Your task to perform on an android device: turn off notifications settings in the gmail app Image 0: 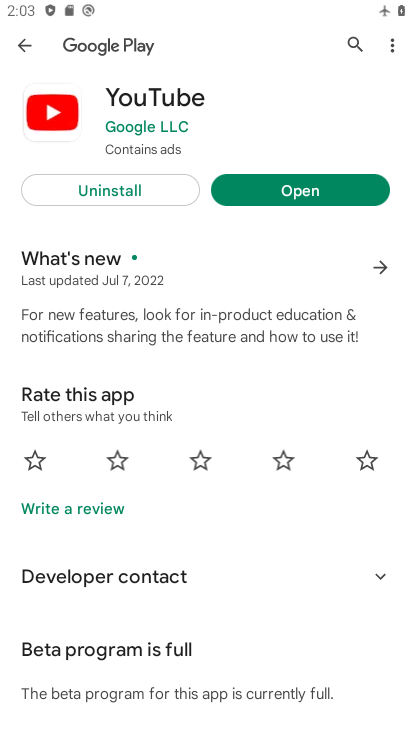
Step 0: press home button
Your task to perform on an android device: turn off notifications settings in the gmail app Image 1: 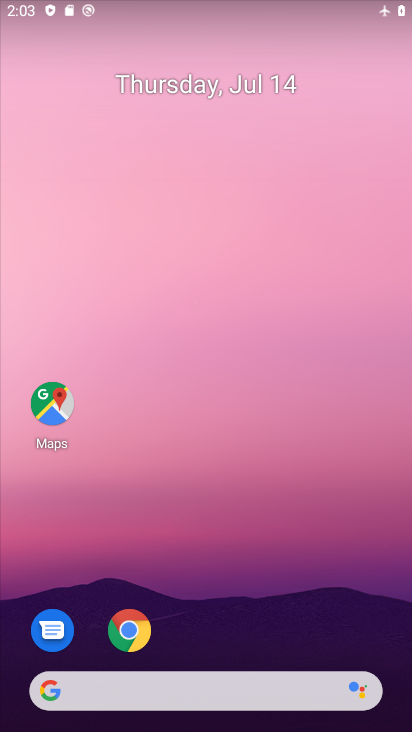
Step 1: drag from (211, 644) to (242, 51)
Your task to perform on an android device: turn off notifications settings in the gmail app Image 2: 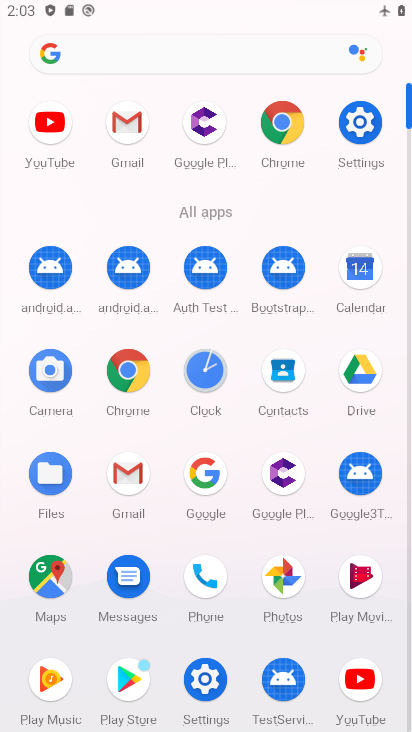
Step 2: click (129, 470)
Your task to perform on an android device: turn off notifications settings in the gmail app Image 3: 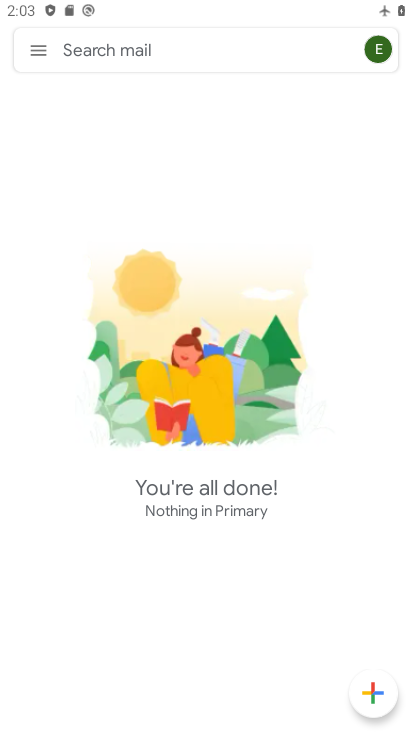
Step 3: click (38, 48)
Your task to perform on an android device: turn off notifications settings in the gmail app Image 4: 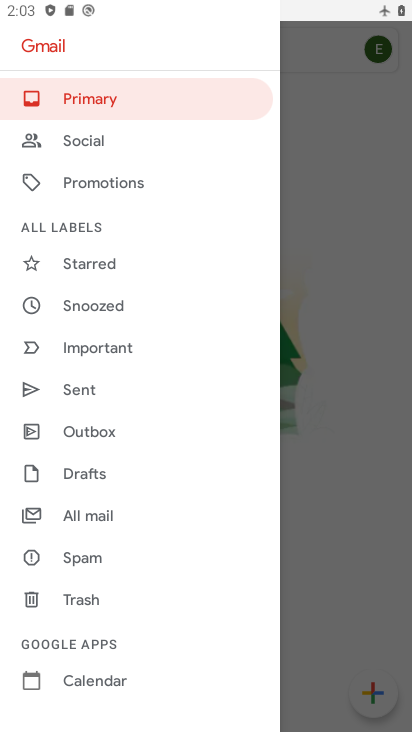
Step 4: drag from (141, 627) to (205, 42)
Your task to perform on an android device: turn off notifications settings in the gmail app Image 5: 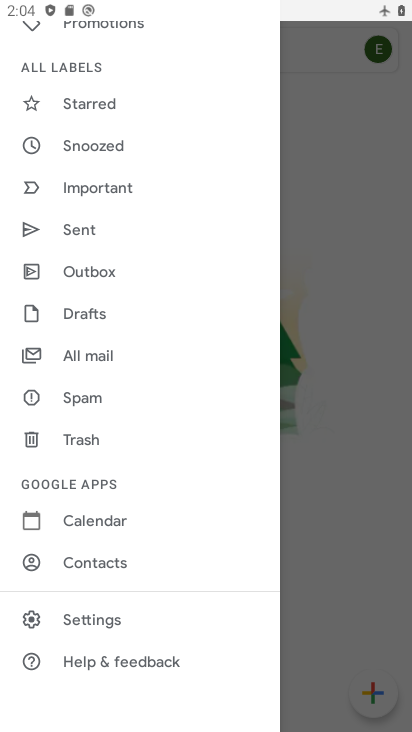
Step 5: click (130, 617)
Your task to perform on an android device: turn off notifications settings in the gmail app Image 6: 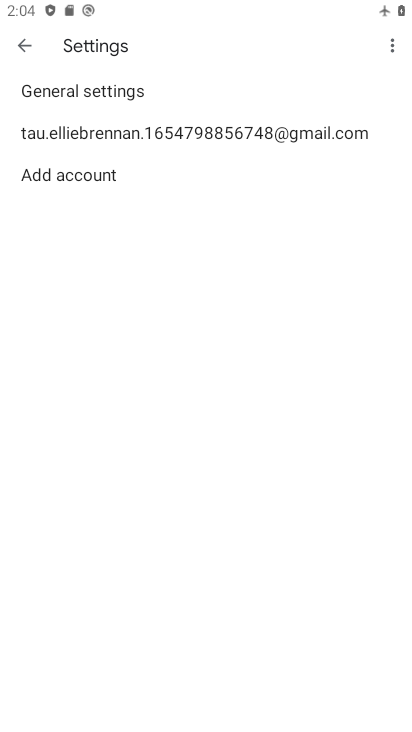
Step 6: click (154, 95)
Your task to perform on an android device: turn off notifications settings in the gmail app Image 7: 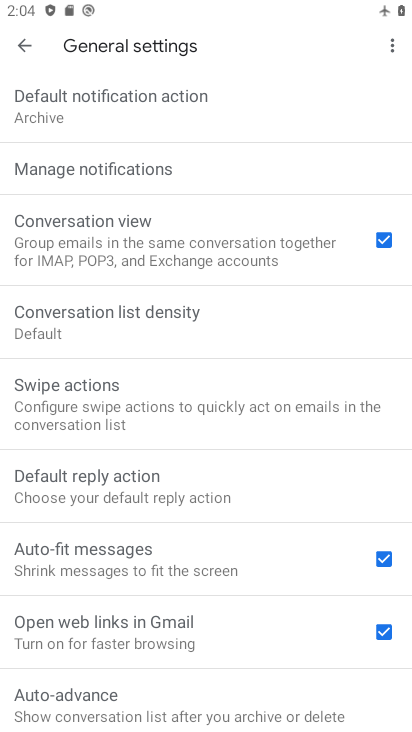
Step 7: click (126, 175)
Your task to perform on an android device: turn off notifications settings in the gmail app Image 8: 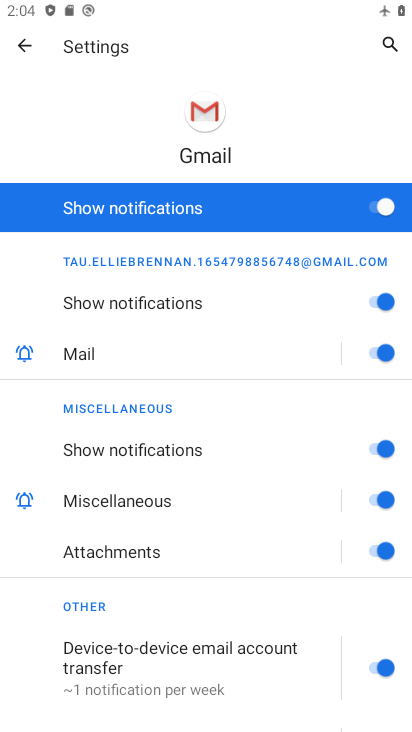
Step 8: click (383, 199)
Your task to perform on an android device: turn off notifications settings in the gmail app Image 9: 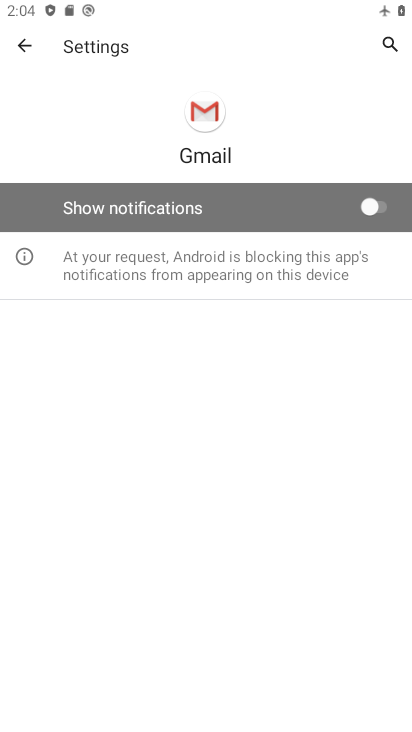
Step 9: task complete